Your task to perform on an android device: Check the settings for the Amazon Alexa app Image 0: 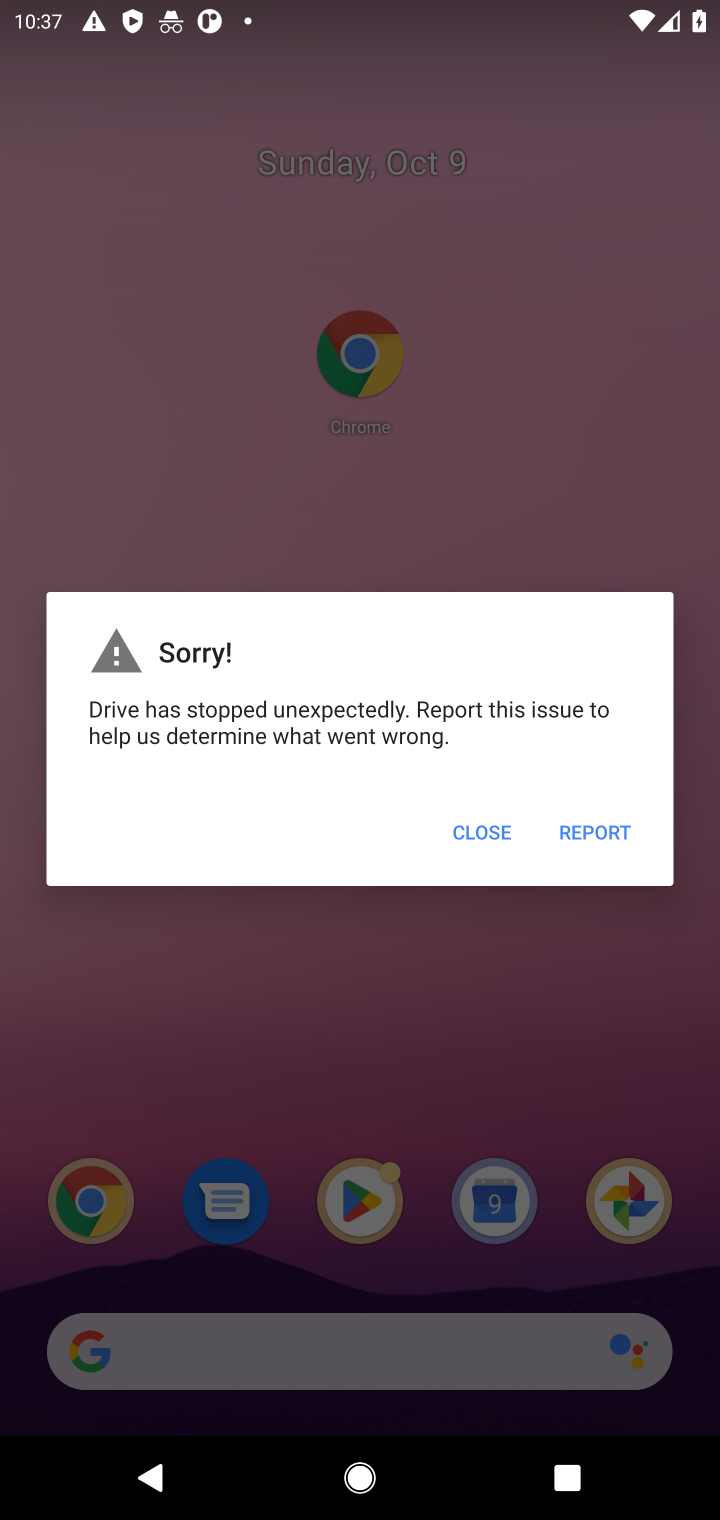
Step 0: click (472, 830)
Your task to perform on an android device: Check the settings for the Amazon Alexa app Image 1: 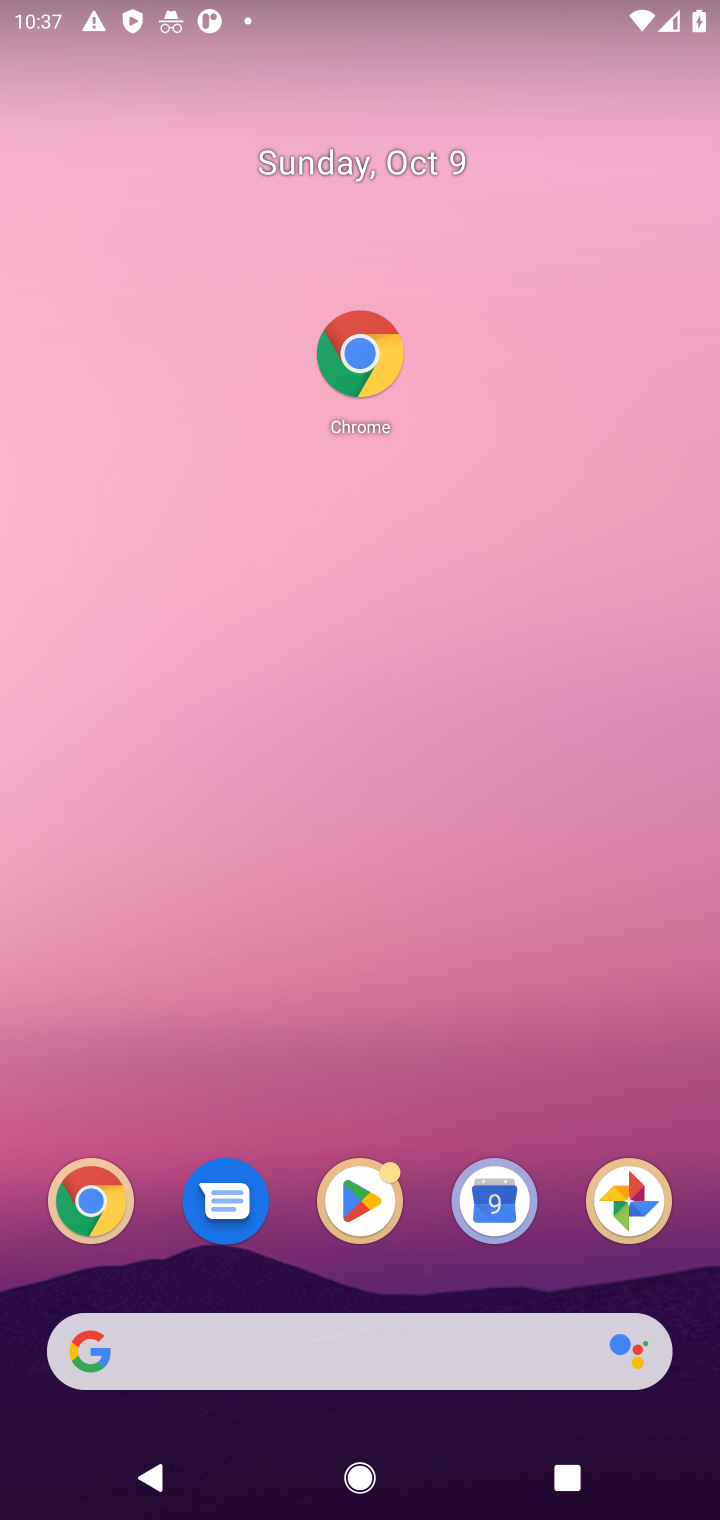
Step 1: drag from (409, 1094) to (371, 446)
Your task to perform on an android device: Check the settings for the Amazon Alexa app Image 2: 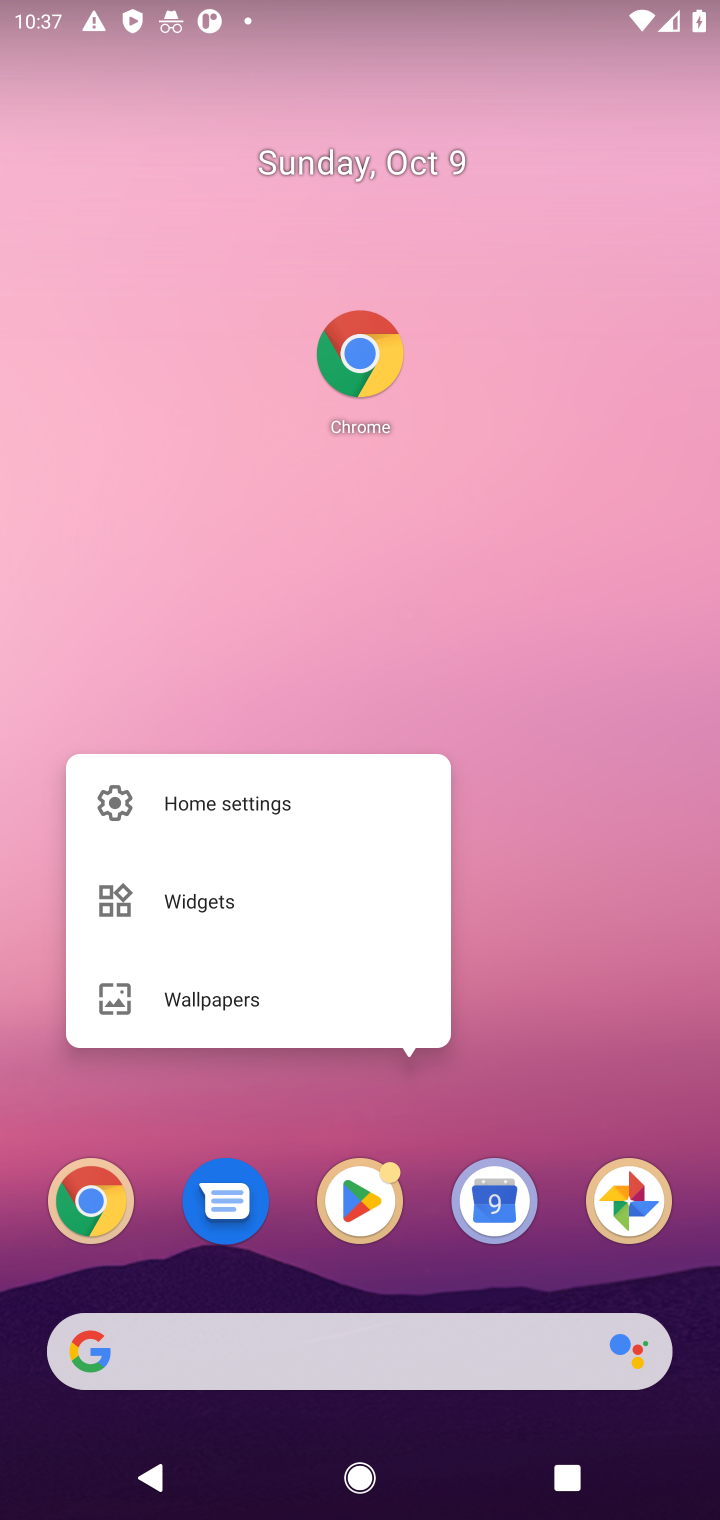
Step 2: click (530, 937)
Your task to perform on an android device: Check the settings for the Amazon Alexa app Image 3: 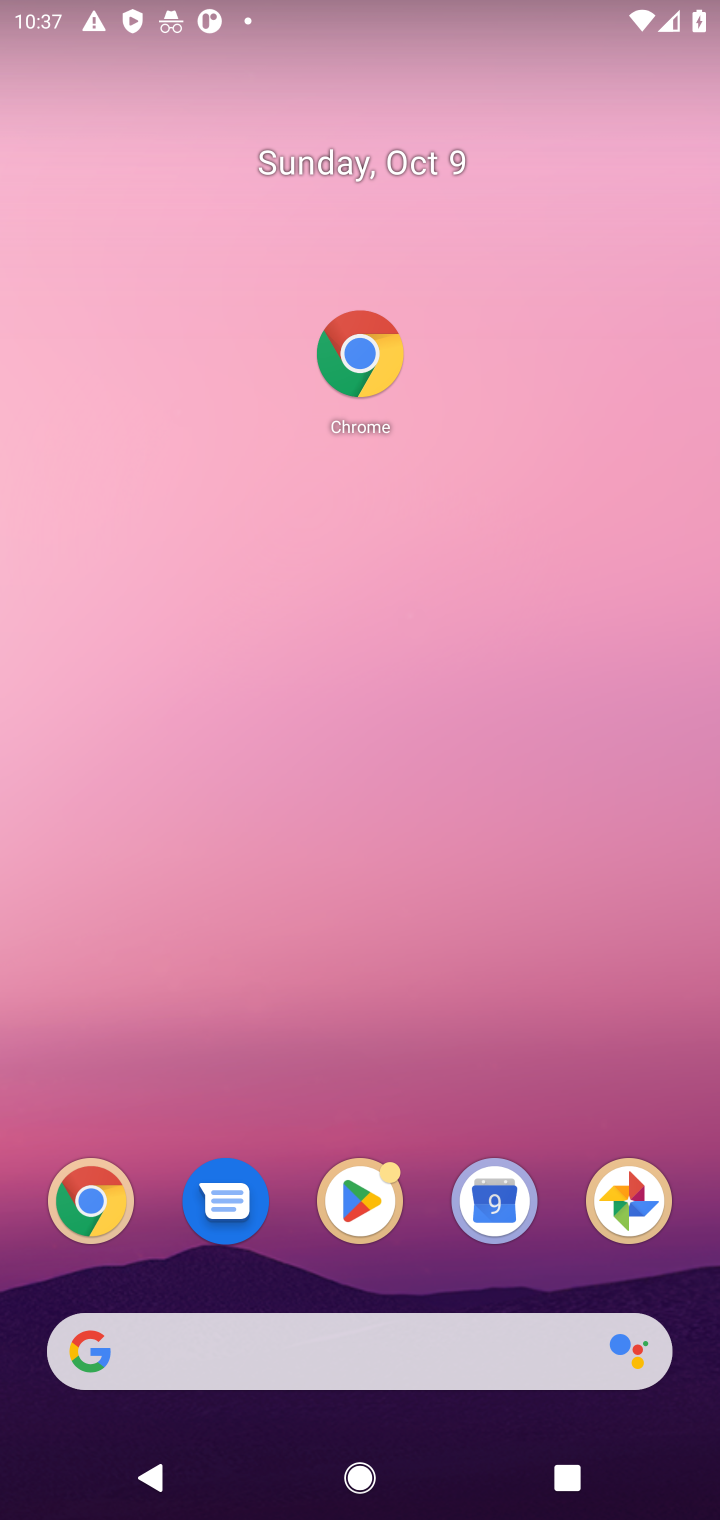
Step 3: drag from (434, 1101) to (428, 9)
Your task to perform on an android device: Check the settings for the Amazon Alexa app Image 4: 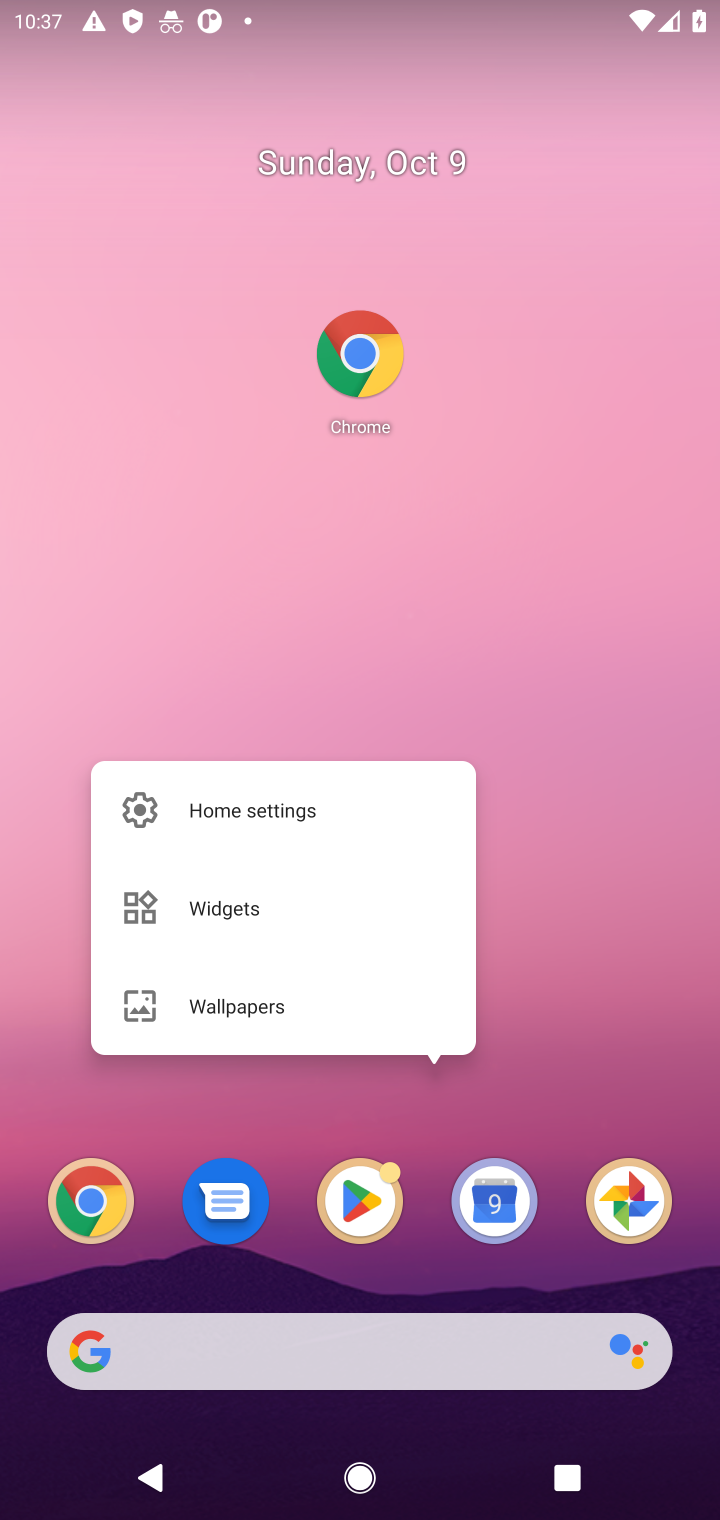
Step 4: click (624, 1030)
Your task to perform on an android device: Check the settings for the Amazon Alexa app Image 5: 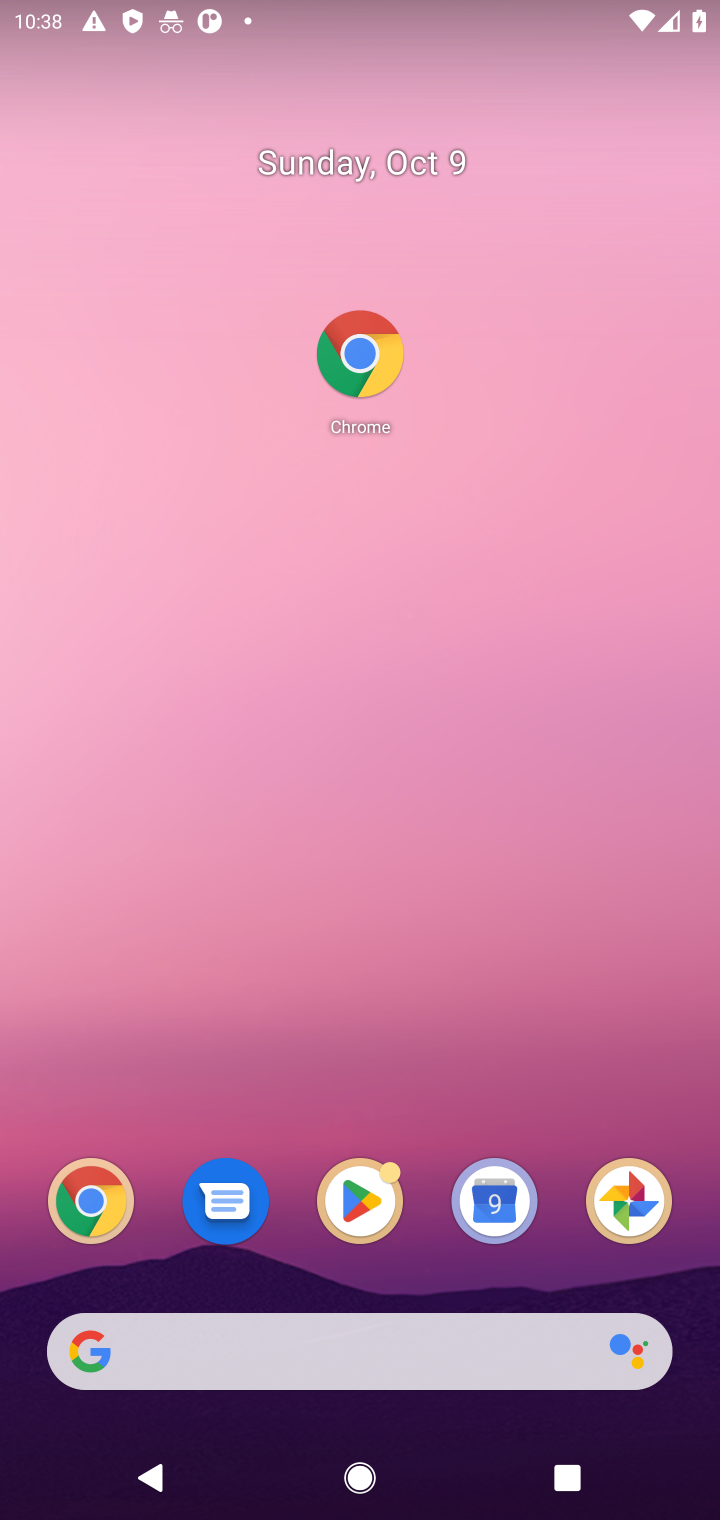
Step 5: click (352, 1214)
Your task to perform on an android device: Check the settings for the Amazon Alexa app Image 6: 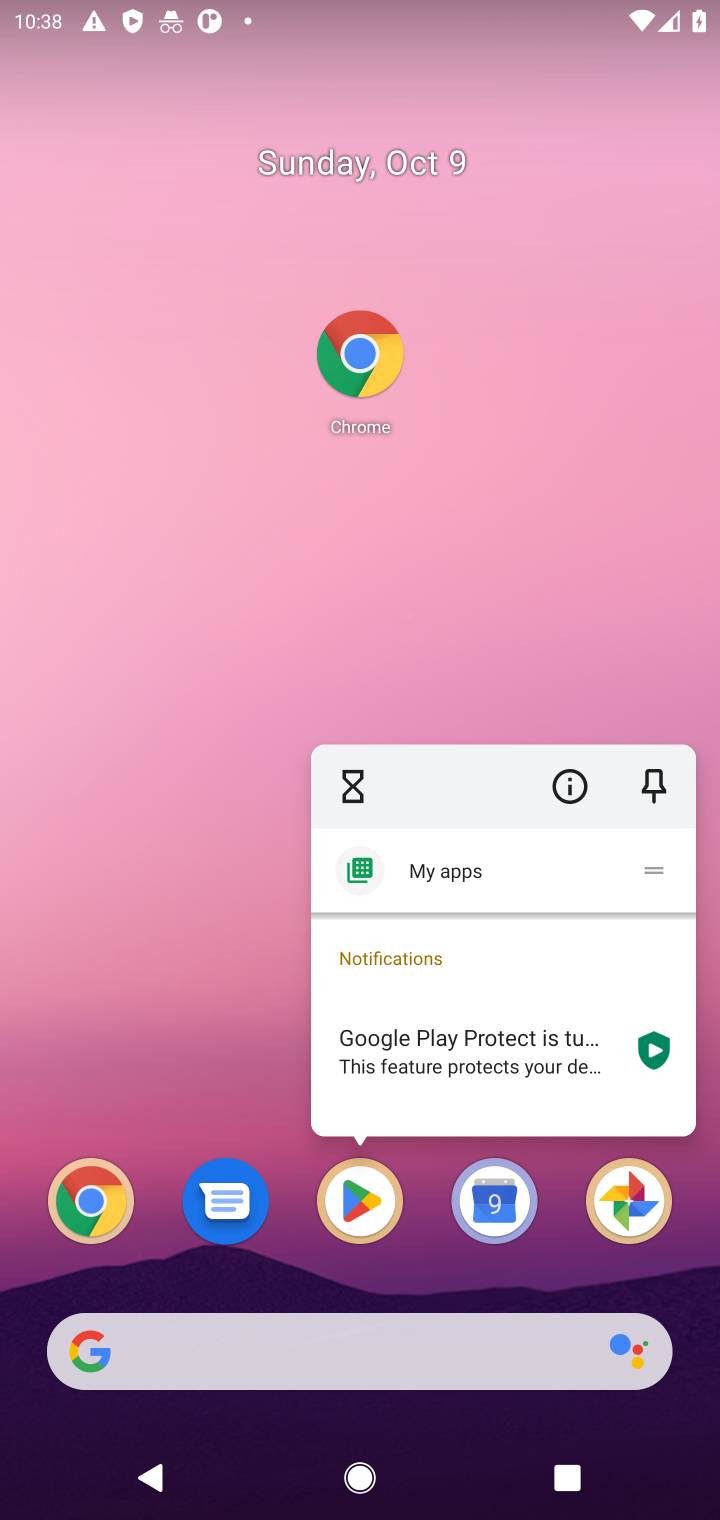
Step 6: click (352, 1214)
Your task to perform on an android device: Check the settings for the Amazon Alexa app Image 7: 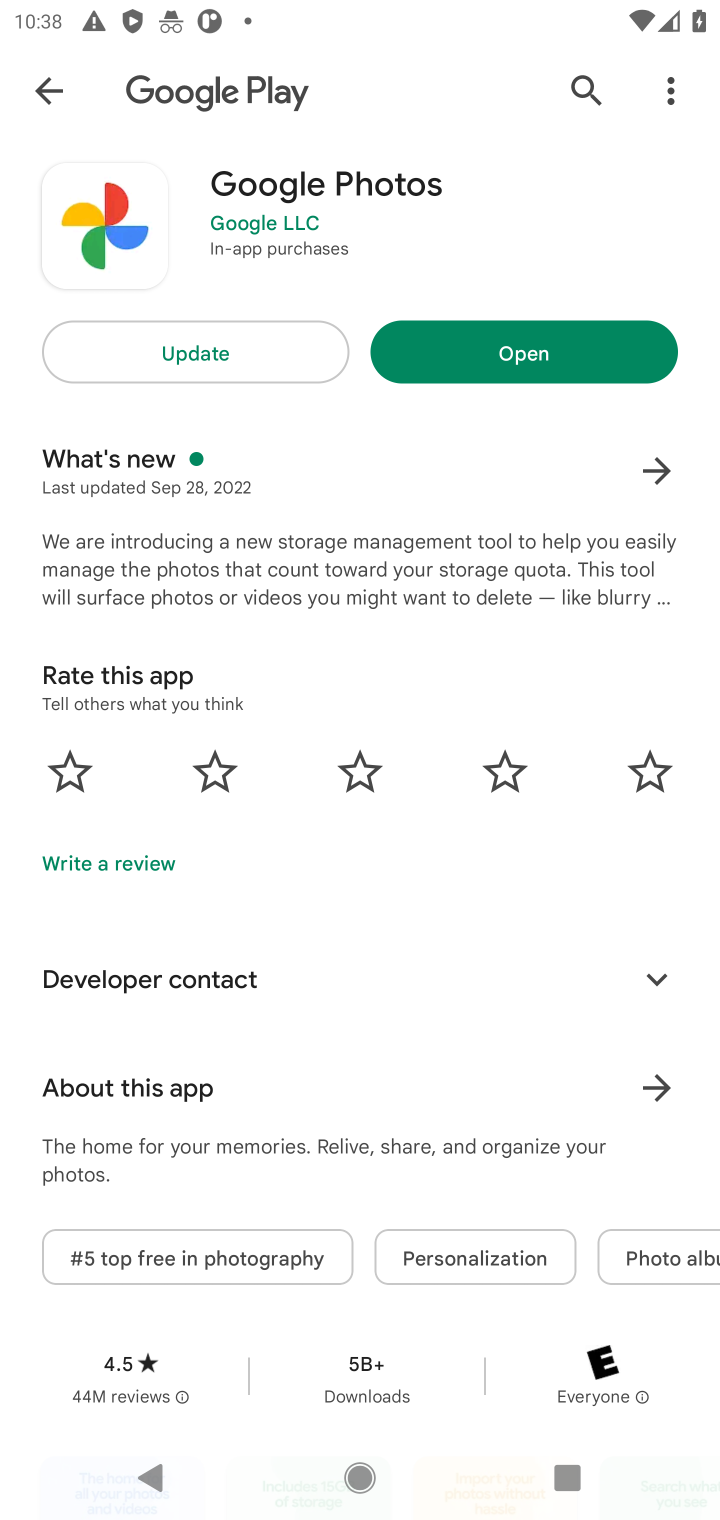
Step 7: click (32, 98)
Your task to perform on an android device: Check the settings for the Amazon Alexa app Image 8: 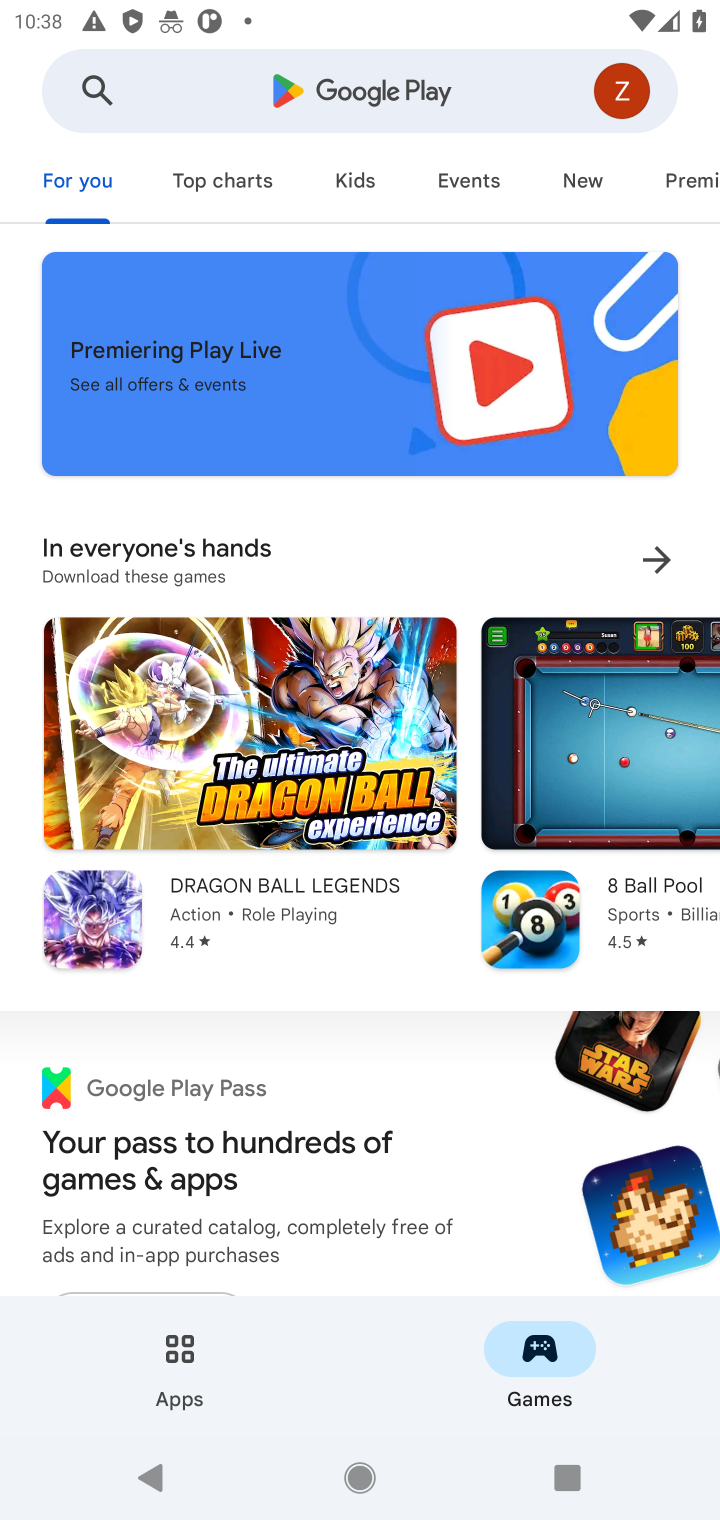
Step 8: click (366, 94)
Your task to perform on an android device: Check the settings for the Amazon Alexa app Image 9: 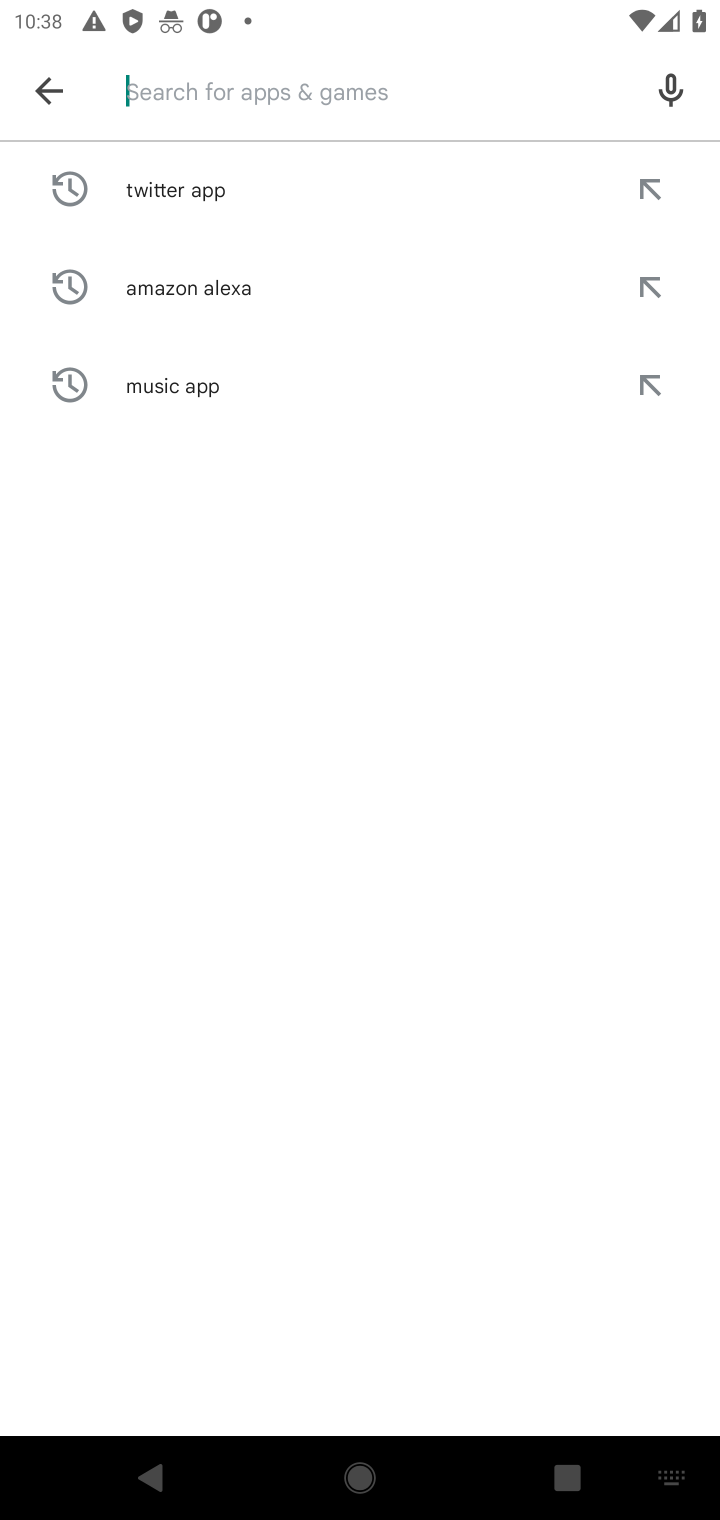
Step 9: type "amazon alexa"
Your task to perform on an android device: Check the settings for the Amazon Alexa app Image 10: 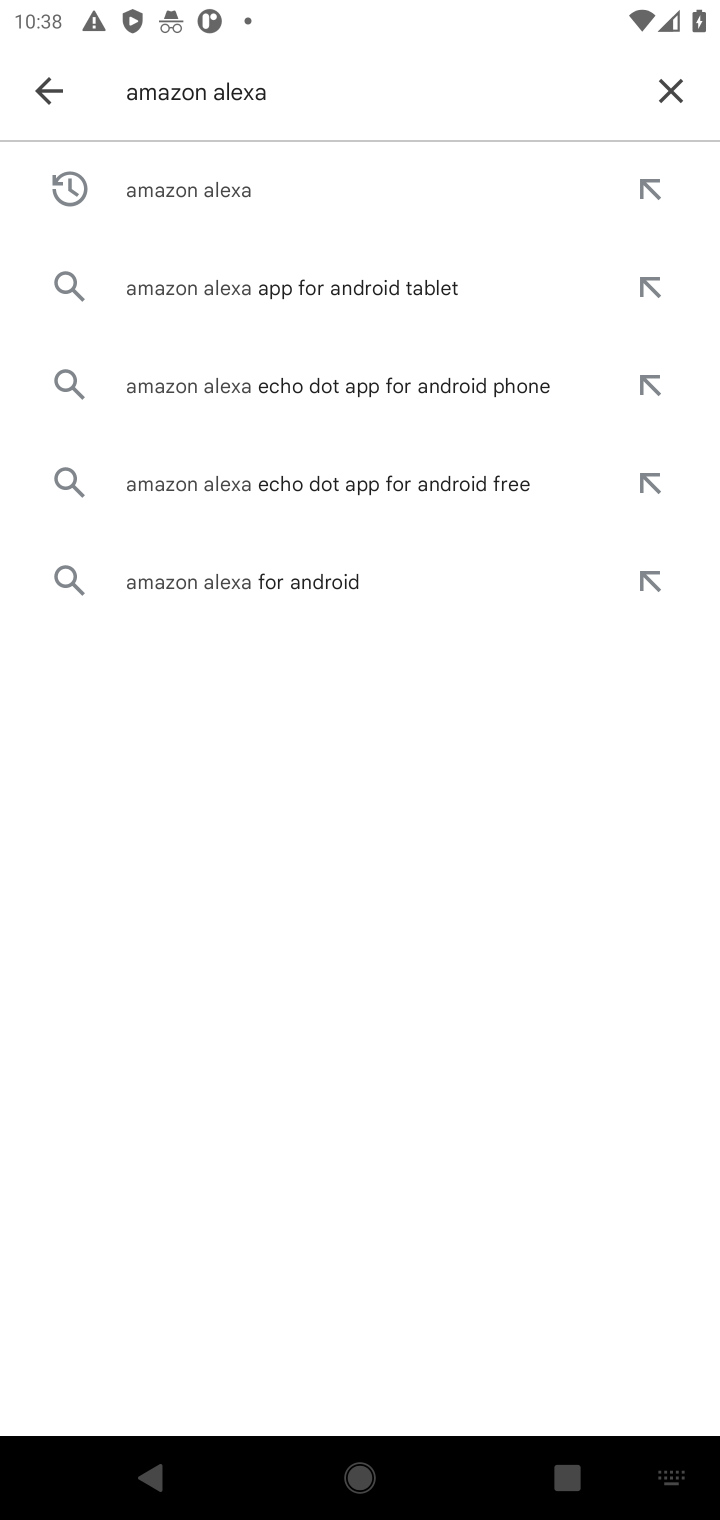
Step 10: click (164, 202)
Your task to perform on an android device: Check the settings for the Amazon Alexa app Image 11: 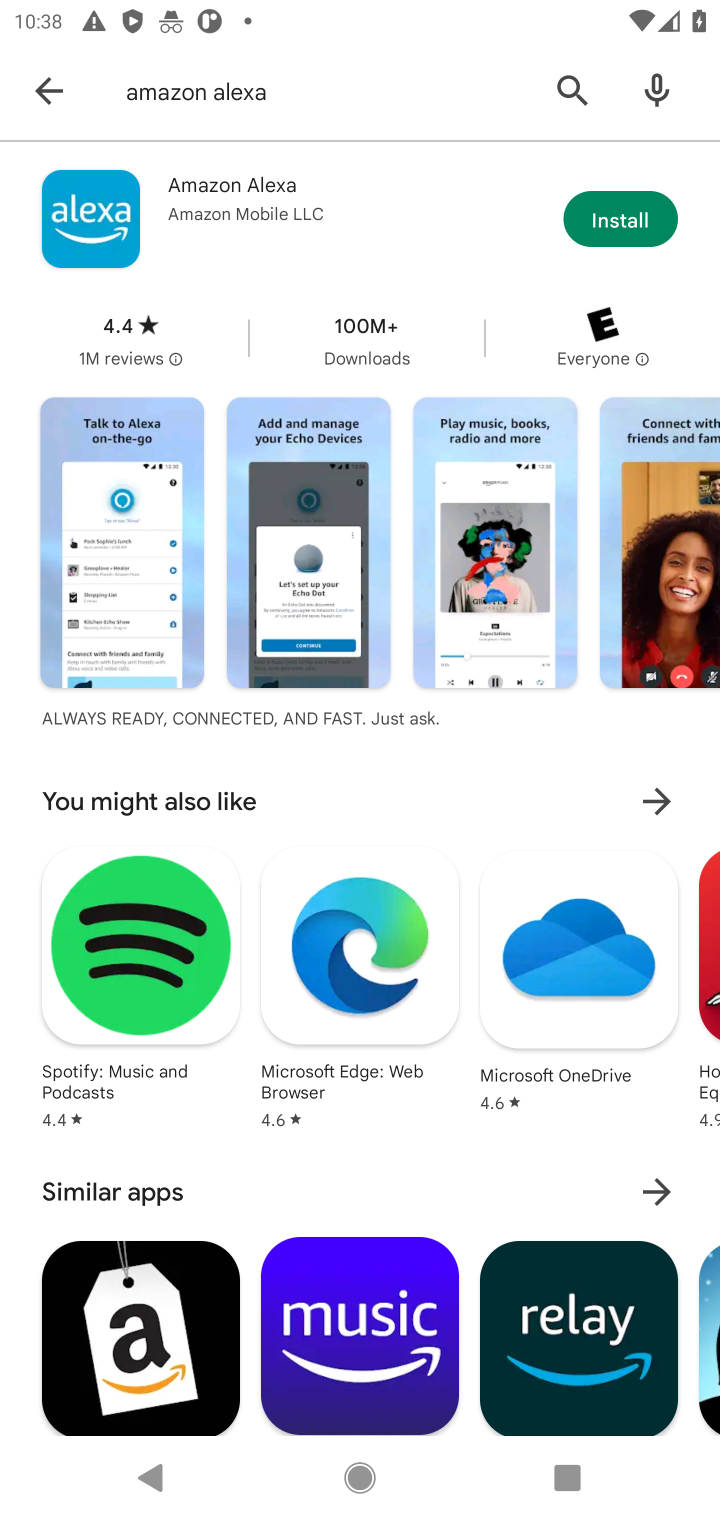
Step 11: task complete